Your task to perform on an android device: uninstall "Fetch Rewards" Image 0: 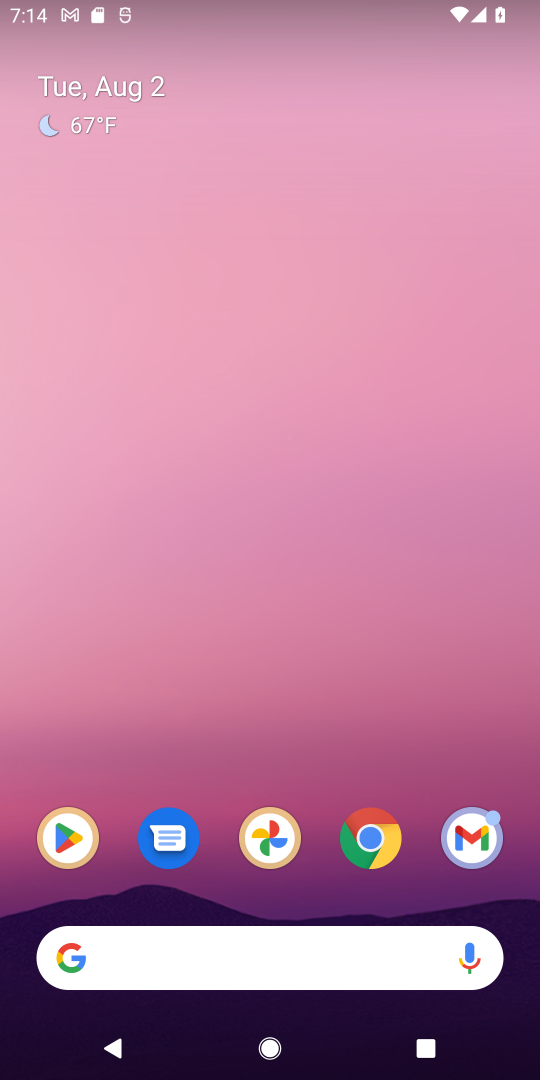
Step 0: click (57, 844)
Your task to perform on an android device: uninstall "Fetch Rewards" Image 1: 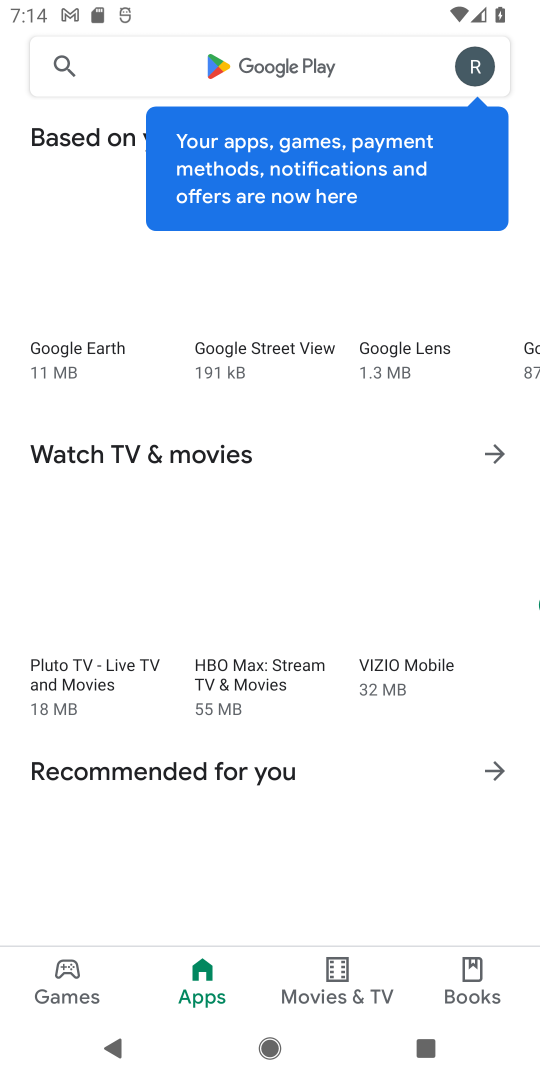
Step 1: click (349, 76)
Your task to perform on an android device: uninstall "Fetch Rewards" Image 2: 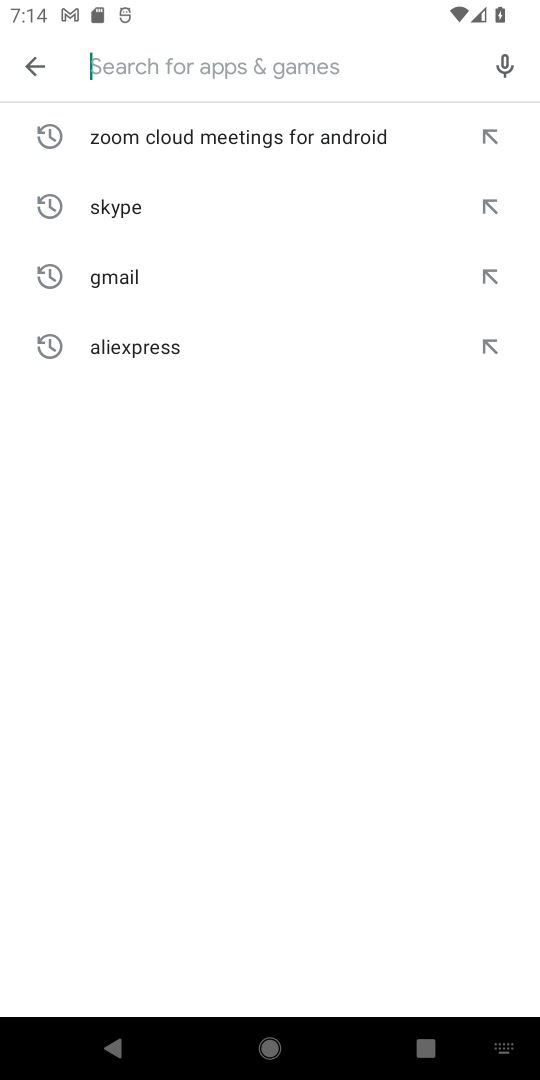
Step 2: type "fetch rewards"
Your task to perform on an android device: uninstall "Fetch Rewards" Image 3: 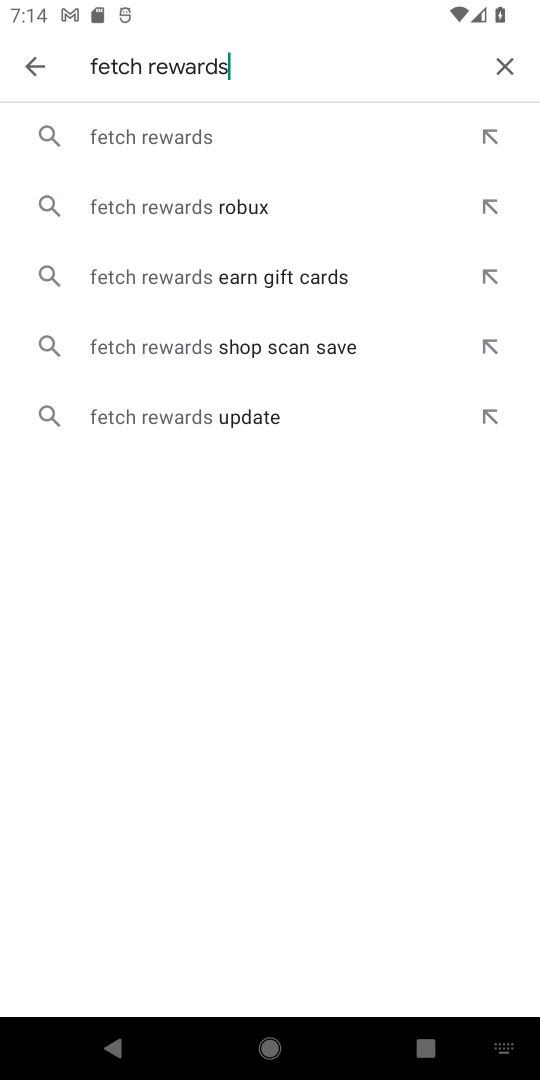
Step 3: click (334, 119)
Your task to perform on an android device: uninstall "Fetch Rewards" Image 4: 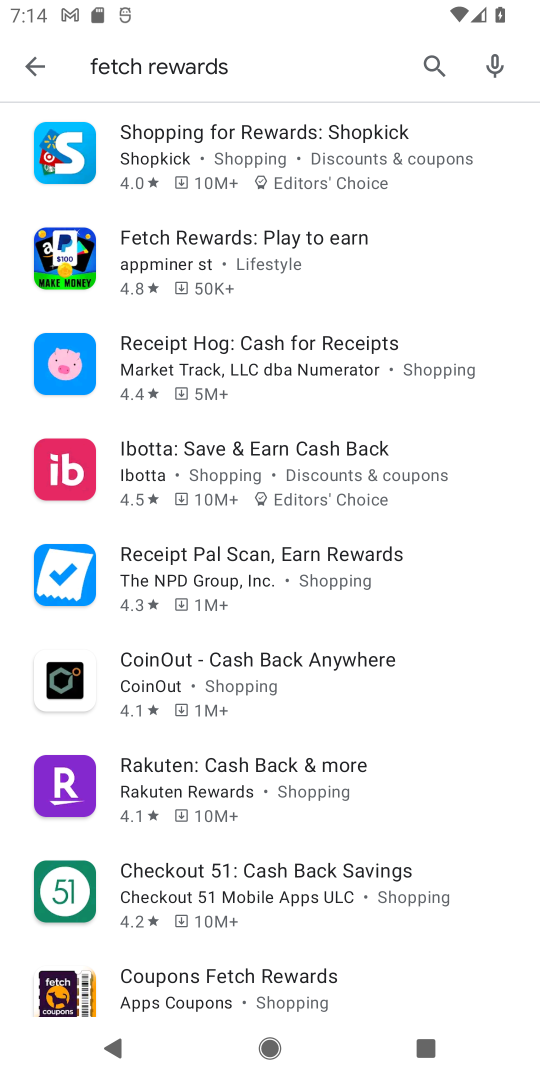
Step 4: click (264, 253)
Your task to perform on an android device: uninstall "Fetch Rewards" Image 5: 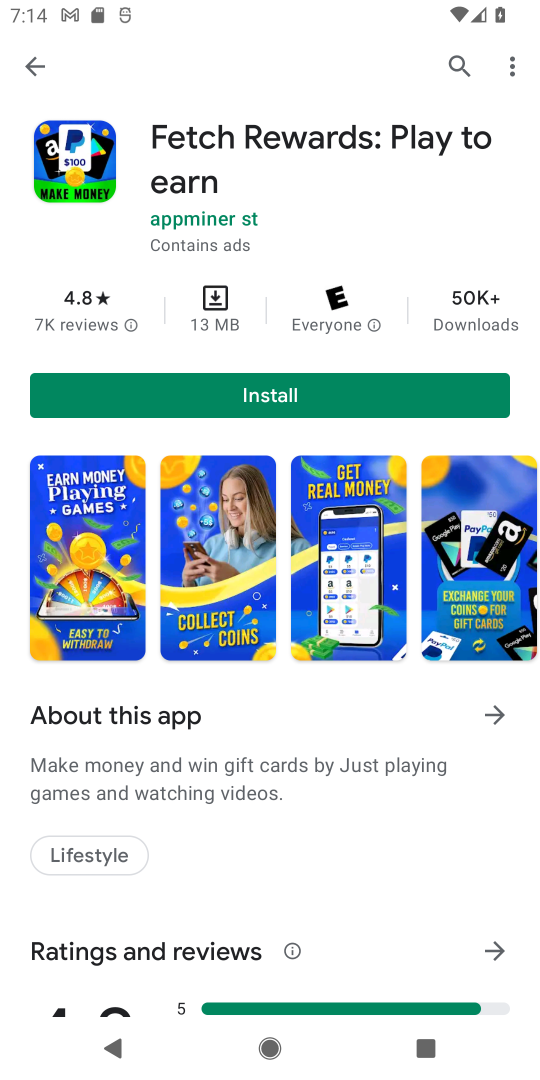
Step 5: task complete